Your task to perform on an android device: find snoozed emails in the gmail app Image 0: 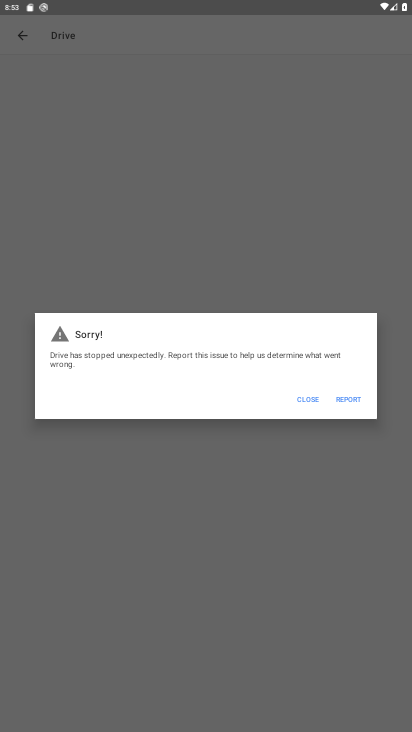
Step 0: press home button
Your task to perform on an android device: find snoozed emails in the gmail app Image 1: 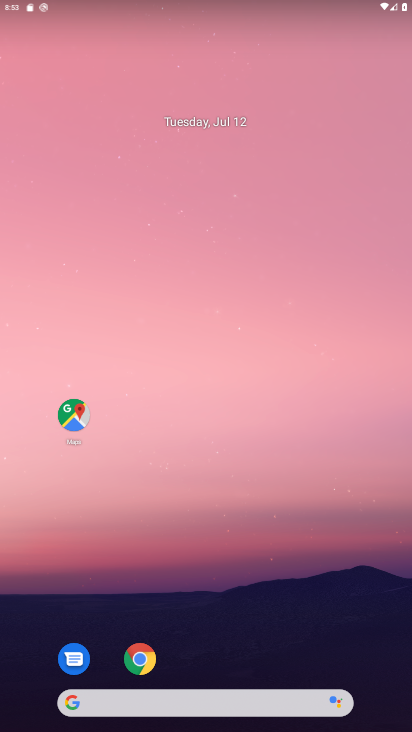
Step 1: drag from (310, 612) to (328, 100)
Your task to perform on an android device: find snoozed emails in the gmail app Image 2: 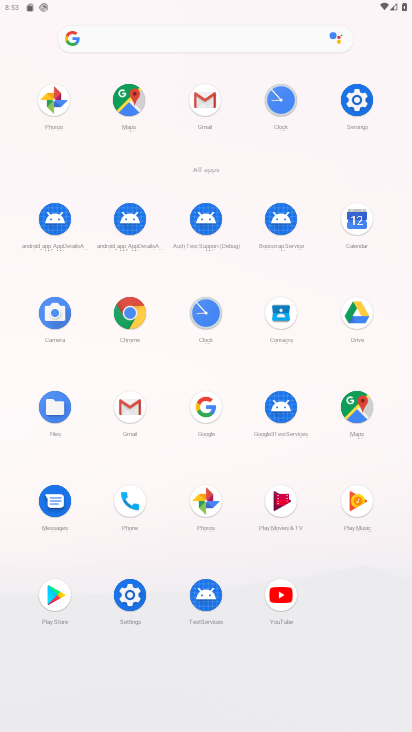
Step 2: click (203, 112)
Your task to perform on an android device: find snoozed emails in the gmail app Image 3: 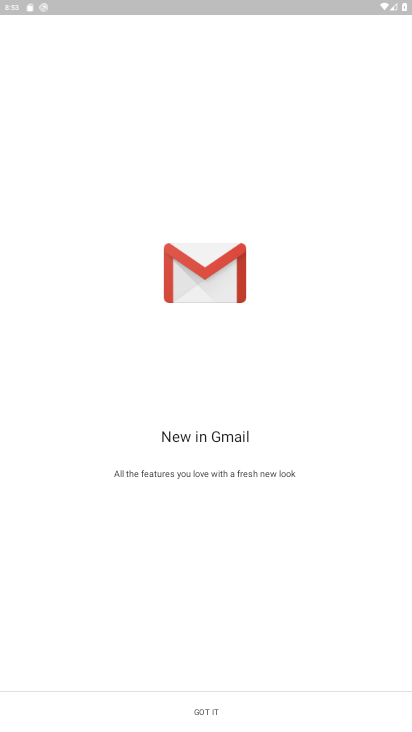
Step 3: click (217, 711)
Your task to perform on an android device: find snoozed emails in the gmail app Image 4: 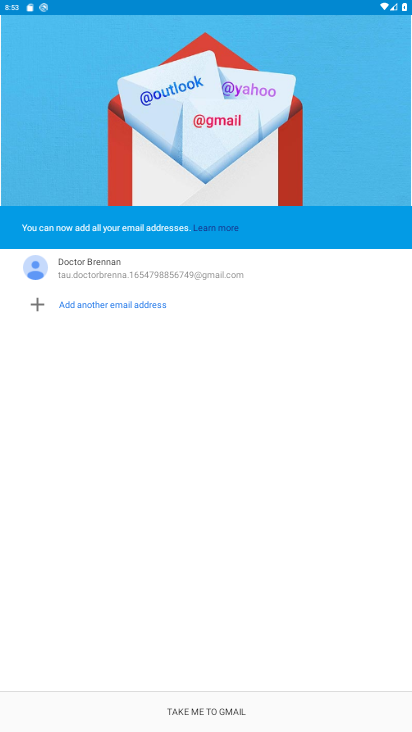
Step 4: click (240, 701)
Your task to perform on an android device: find snoozed emails in the gmail app Image 5: 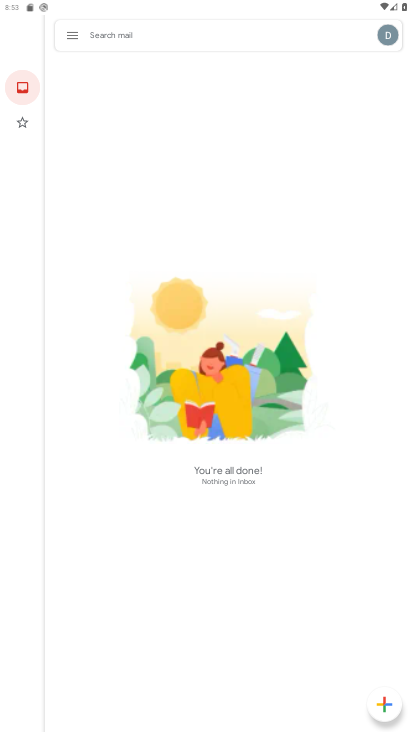
Step 5: click (66, 38)
Your task to perform on an android device: find snoozed emails in the gmail app Image 6: 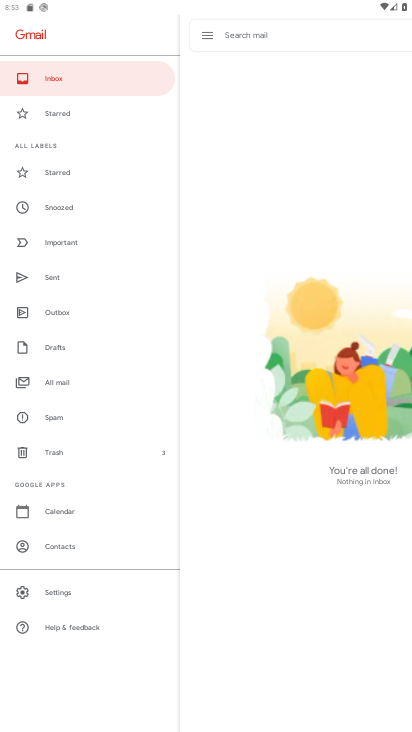
Step 6: click (45, 202)
Your task to perform on an android device: find snoozed emails in the gmail app Image 7: 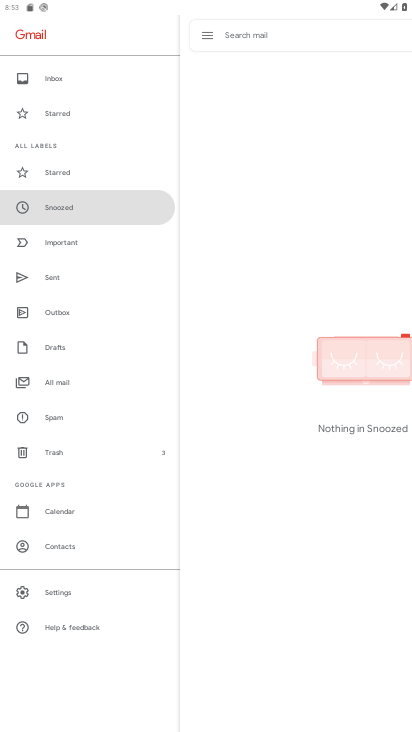
Step 7: task complete